Your task to perform on an android device: open a bookmark in the chrome app Image 0: 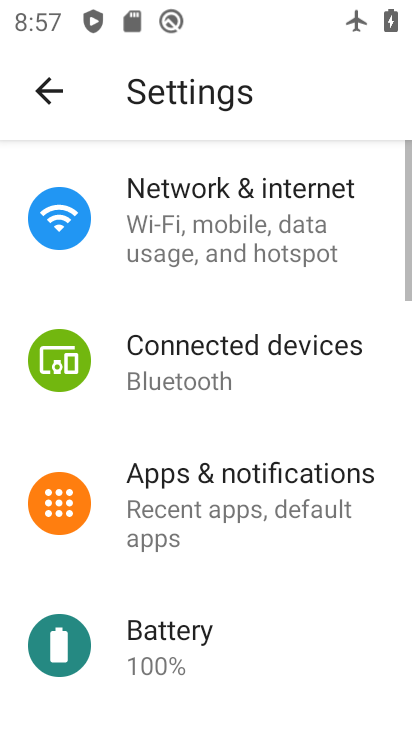
Step 0: click (401, 334)
Your task to perform on an android device: open a bookmark in the chrome app Image 1: 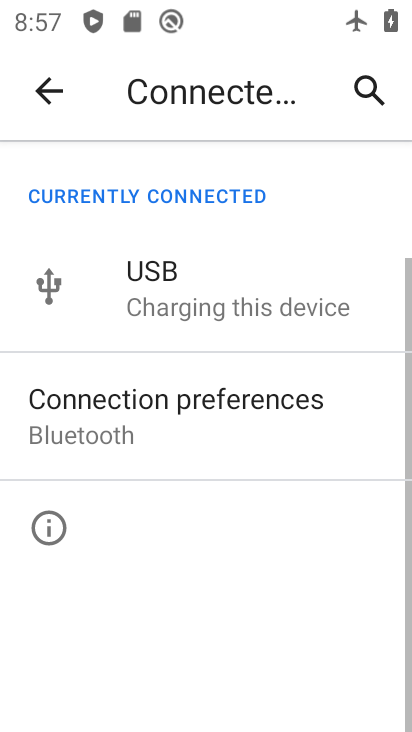
Step 1: press home button
Your task to perform on an android device: open a bookmark in the chrome app Image 2: 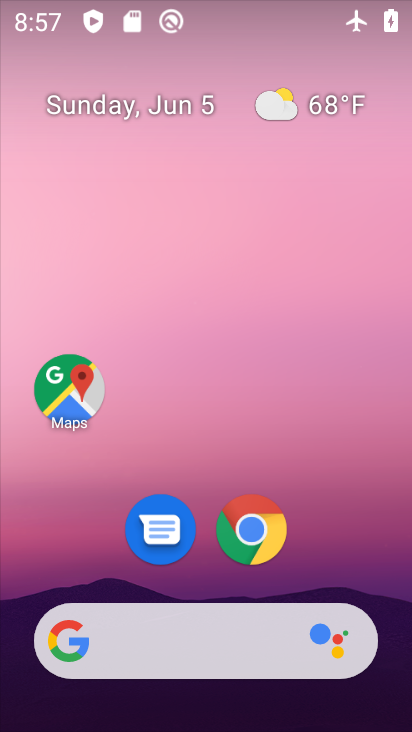
Step 2: click (236, 516)
Your task to perform on an android device: open a bookmark in the chrome app Image 3: 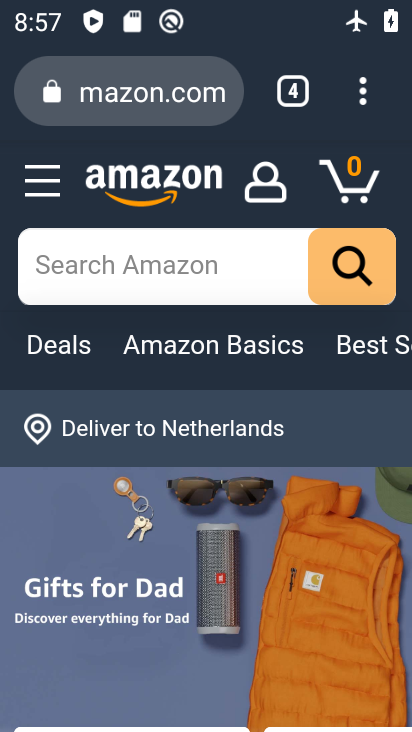
Step 3: click (368, 88)
Your task to perform on an android device: open a bookmark in the chrome app Image 4: 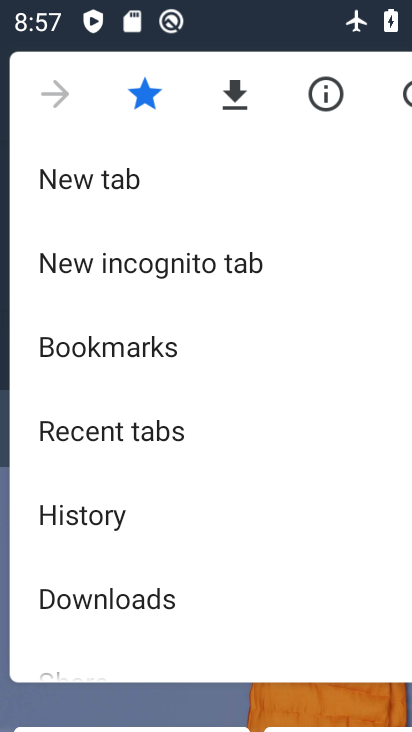
Step 4: click (216, 366)
Your task to perform on an android device: open a bookmark in the chrome app Image 5: 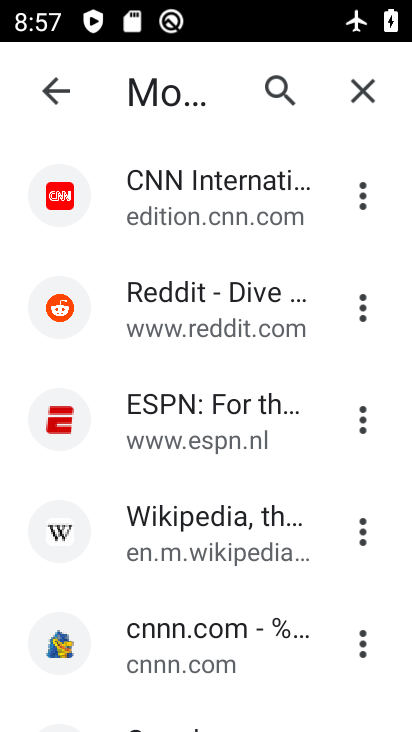
Step 5: click (244, 434)
Your task to perform on an android device: open a bookmark in the chrome app Image 6: 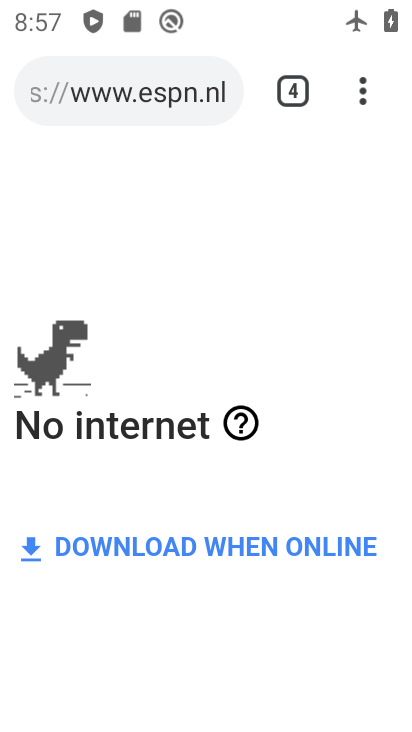
Step 6: task complete